Your task to perform on an android device: Clear all items from cart on ebay. Image 0: 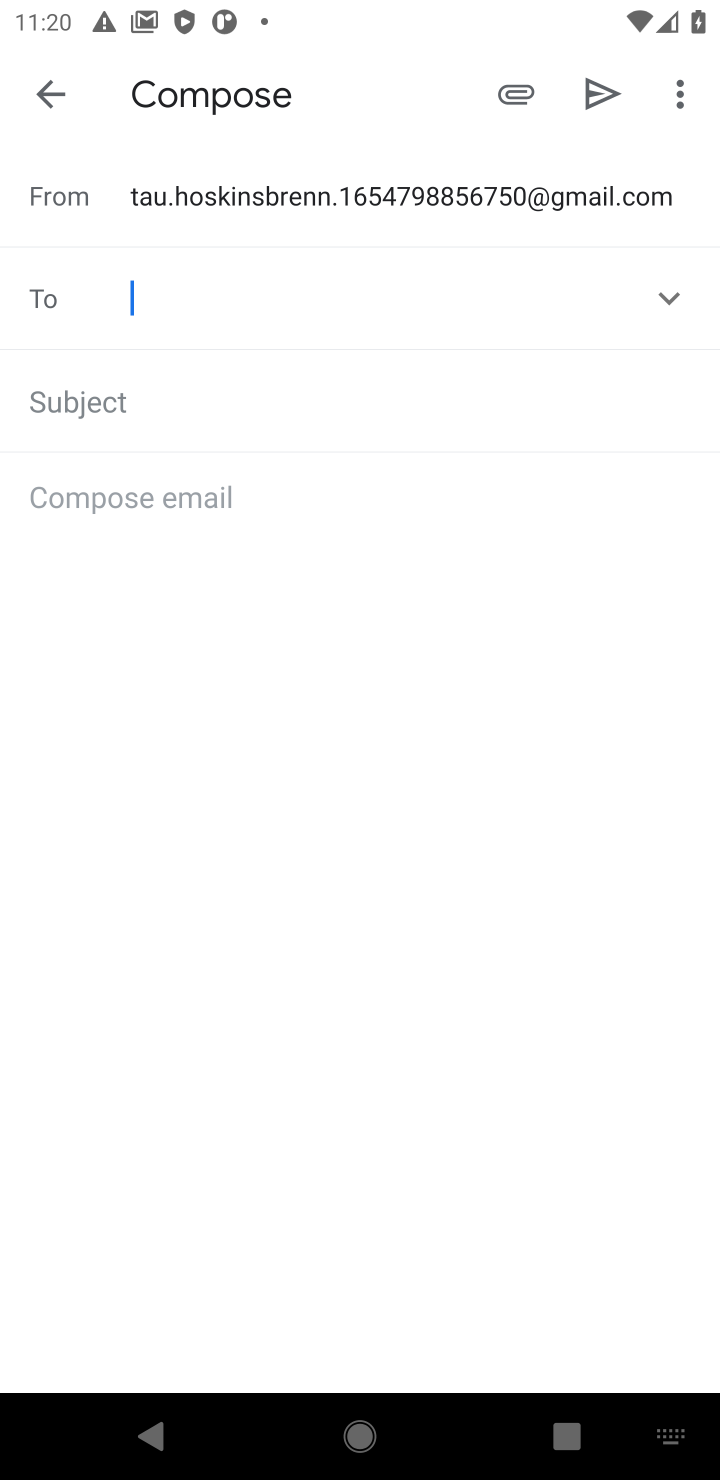
Step 0: press home button
Your task to perform on an android device: Clear all items from cart on ebay. Image 1: 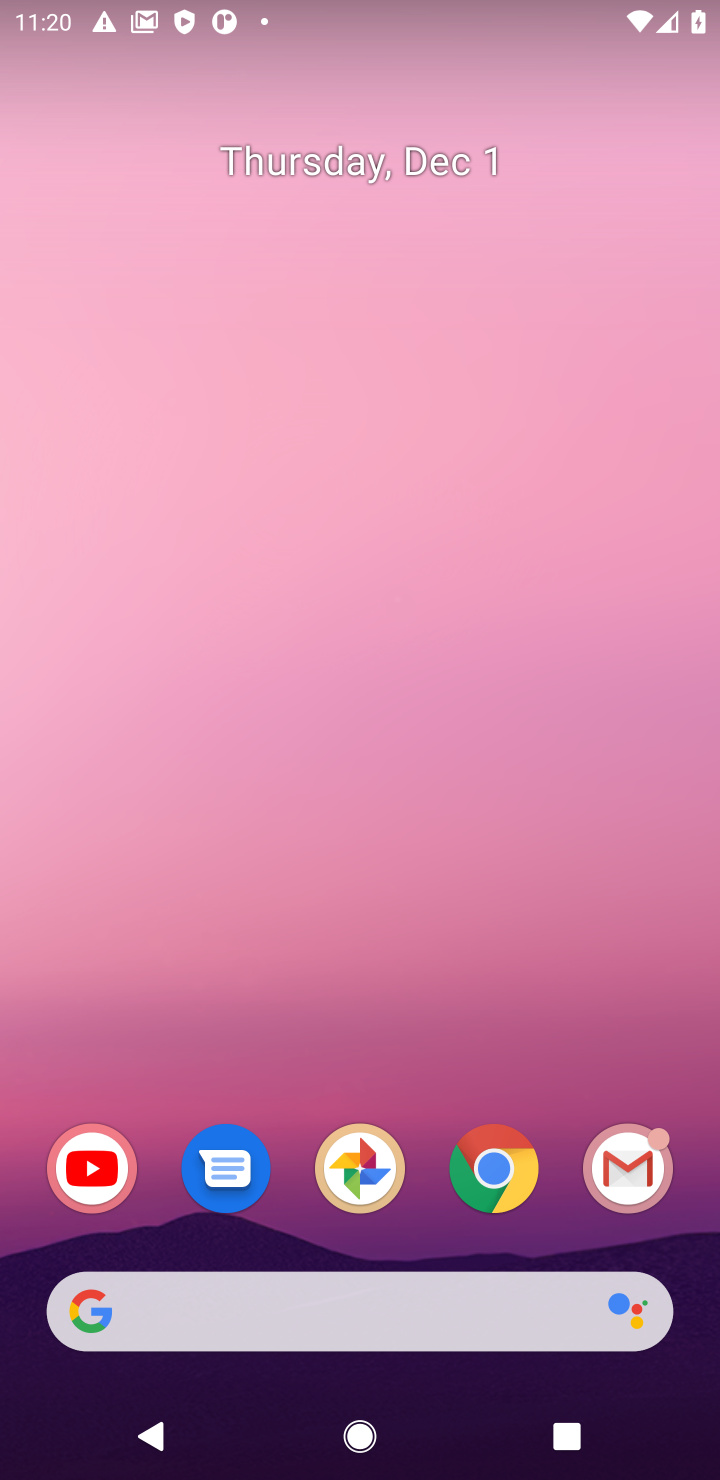
Step 1: click (497, 1177)
Your task to perform on an android device: Clear all items from cart on ebay. Image 2: 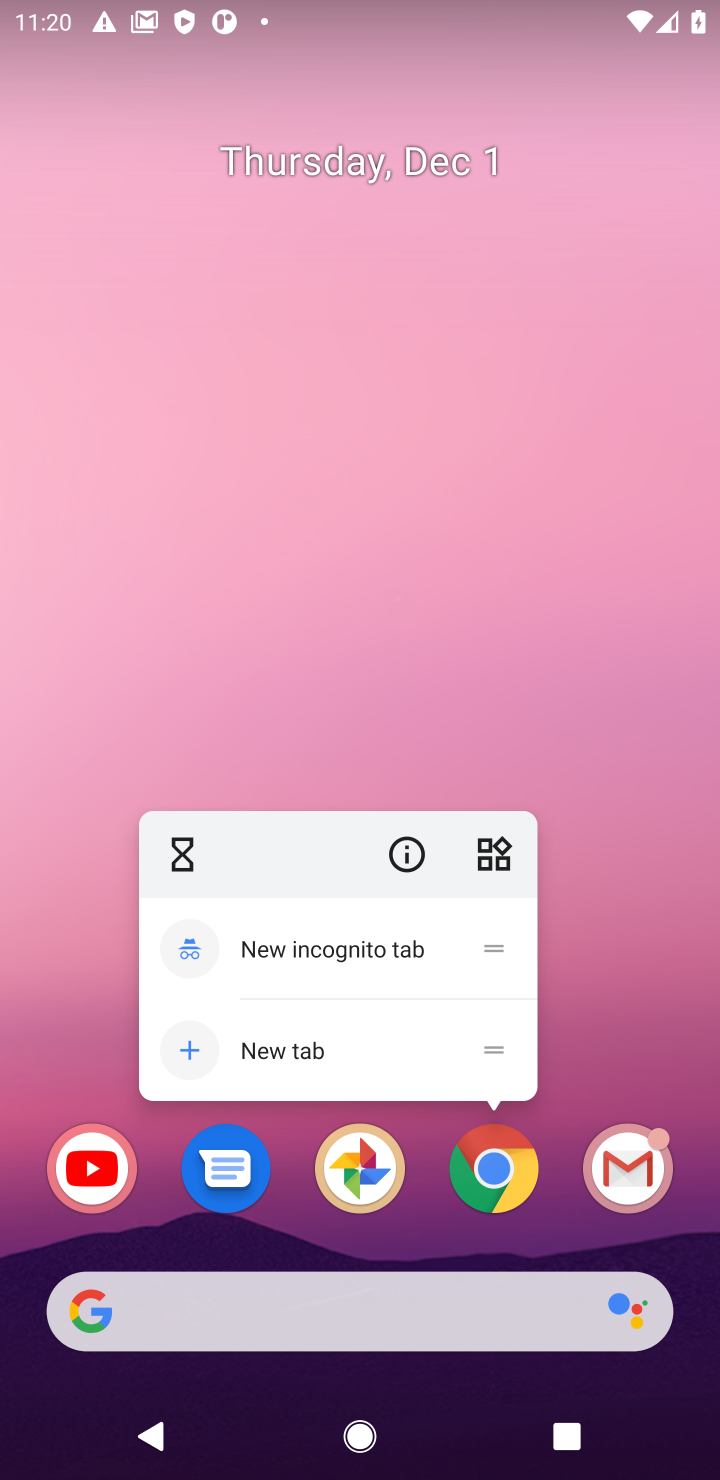
Step 2: click (497, 1177)
Your task to perform on an android device: Clear all items from cart on ebay. Image 3: 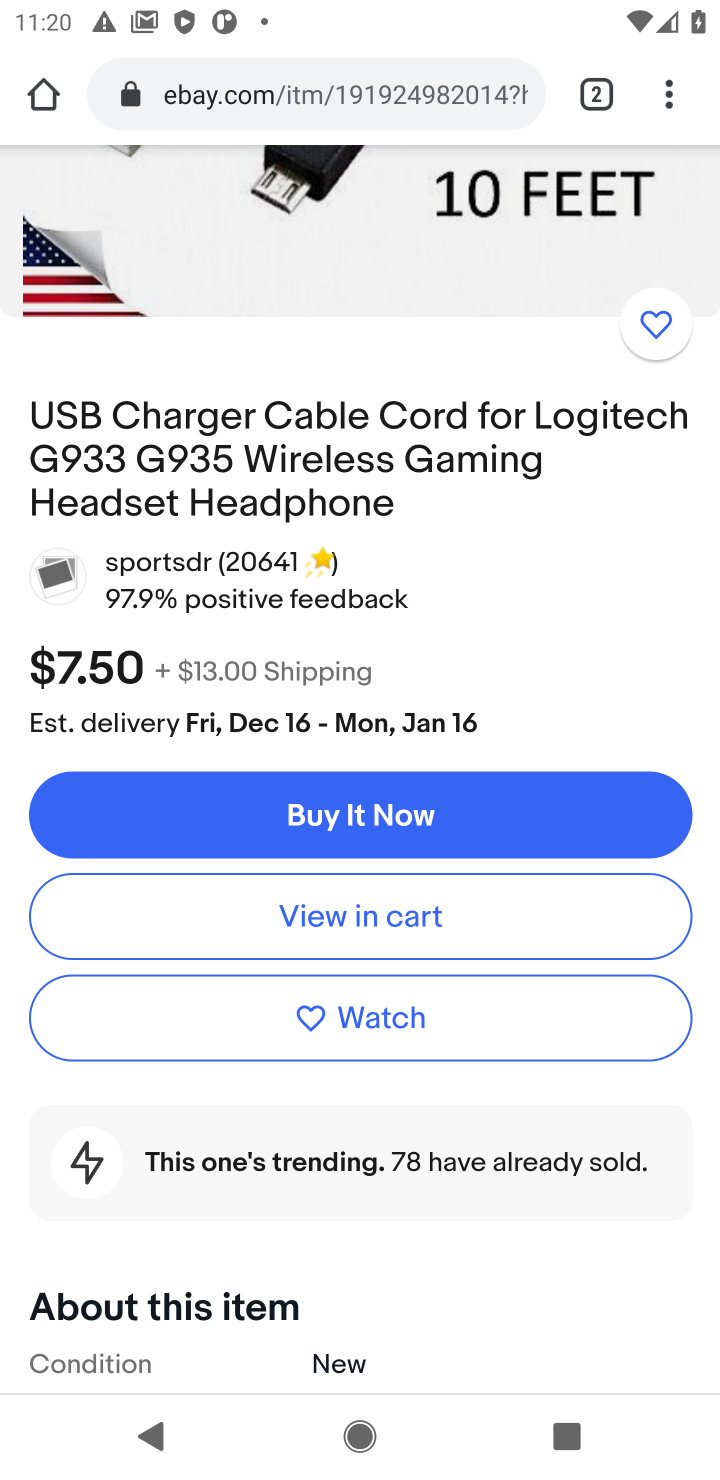
Step 3: drag from (500, 442) to (471, 1078)
Your task to perform on an android device: Clear all items from cart on ebay. Image 4: 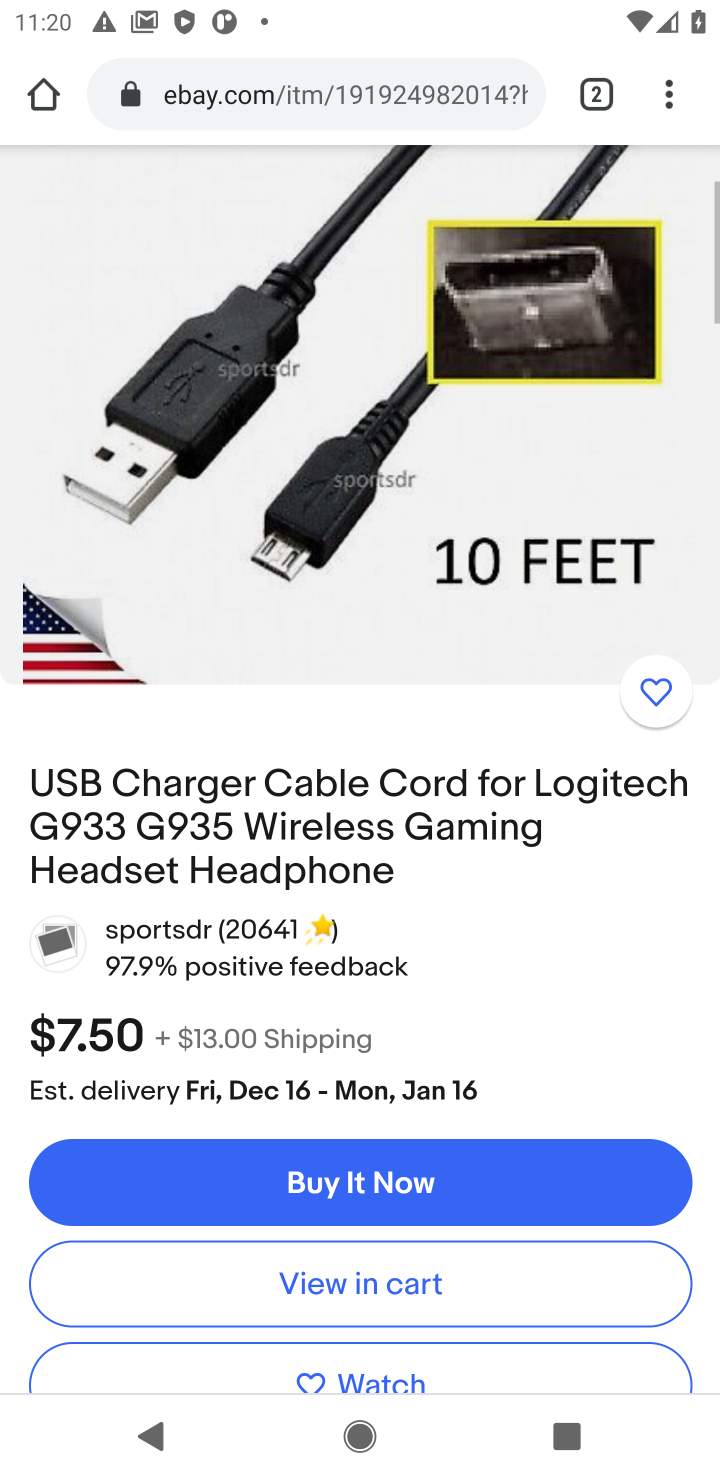
Step 4: drag from (460, 298) to (447, 885)
Your task to perform on an android device: Clear all items from cart on ebay. Image 5: 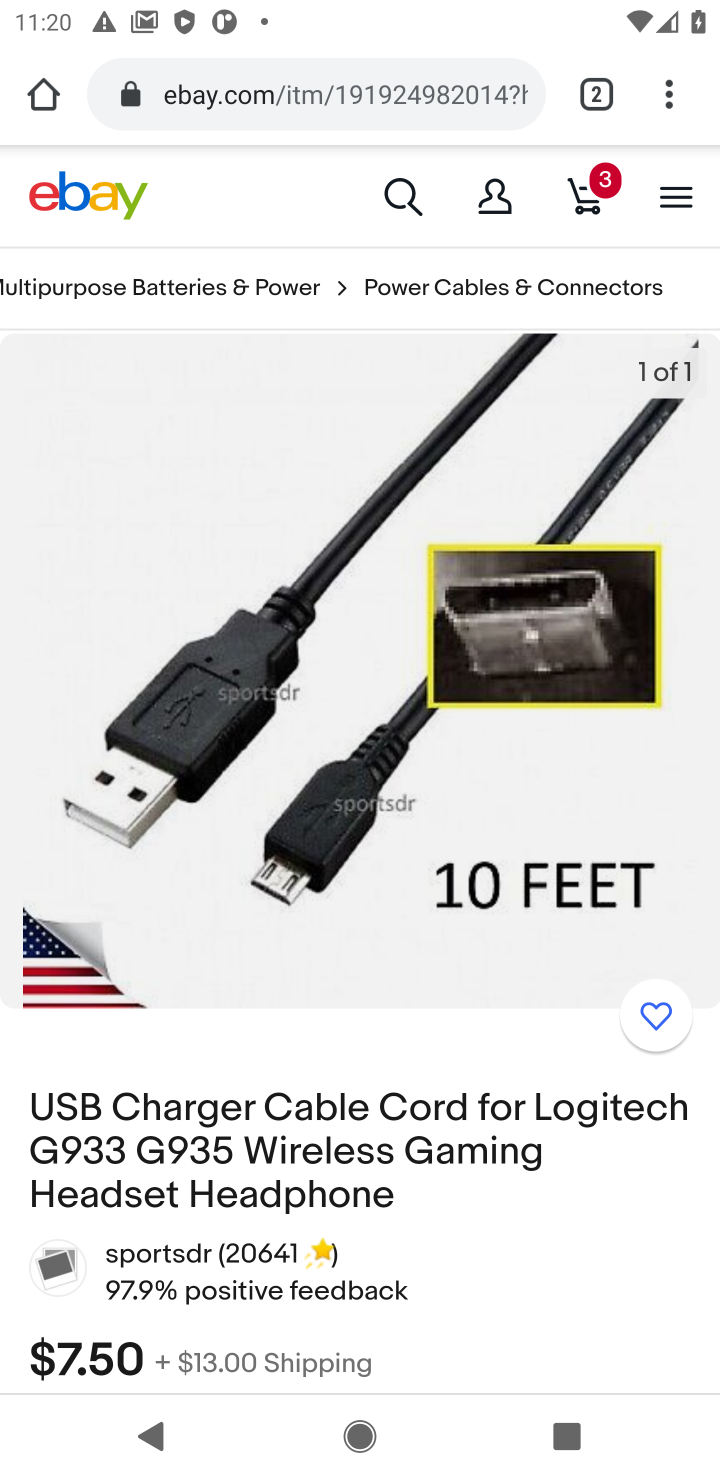
Step 5: click (583, 207)
Your task to perform on an android device: Clear all items from cart on ebay. Image 6: 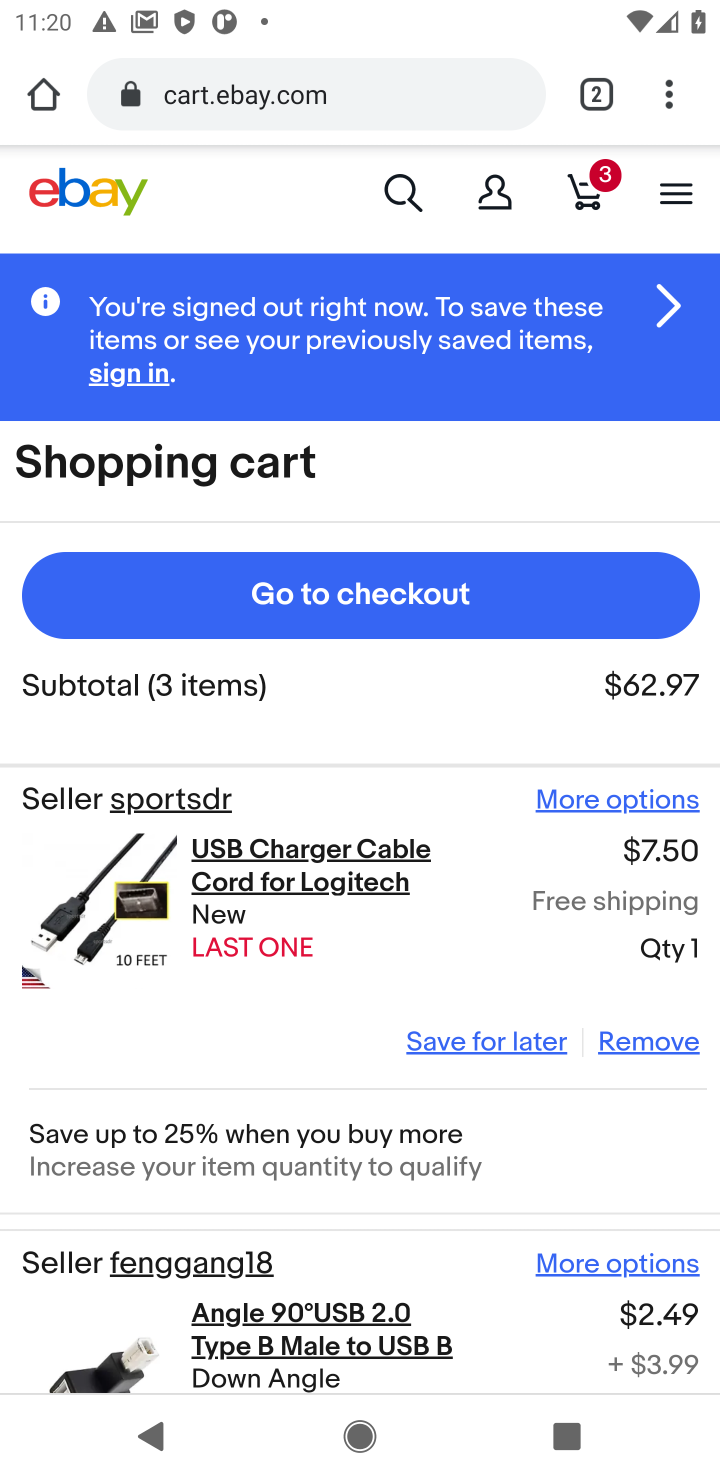
Step 6: click (631, 1044)
Your task to perform on an android device: Clear all items from cart on ebay. Image 7: 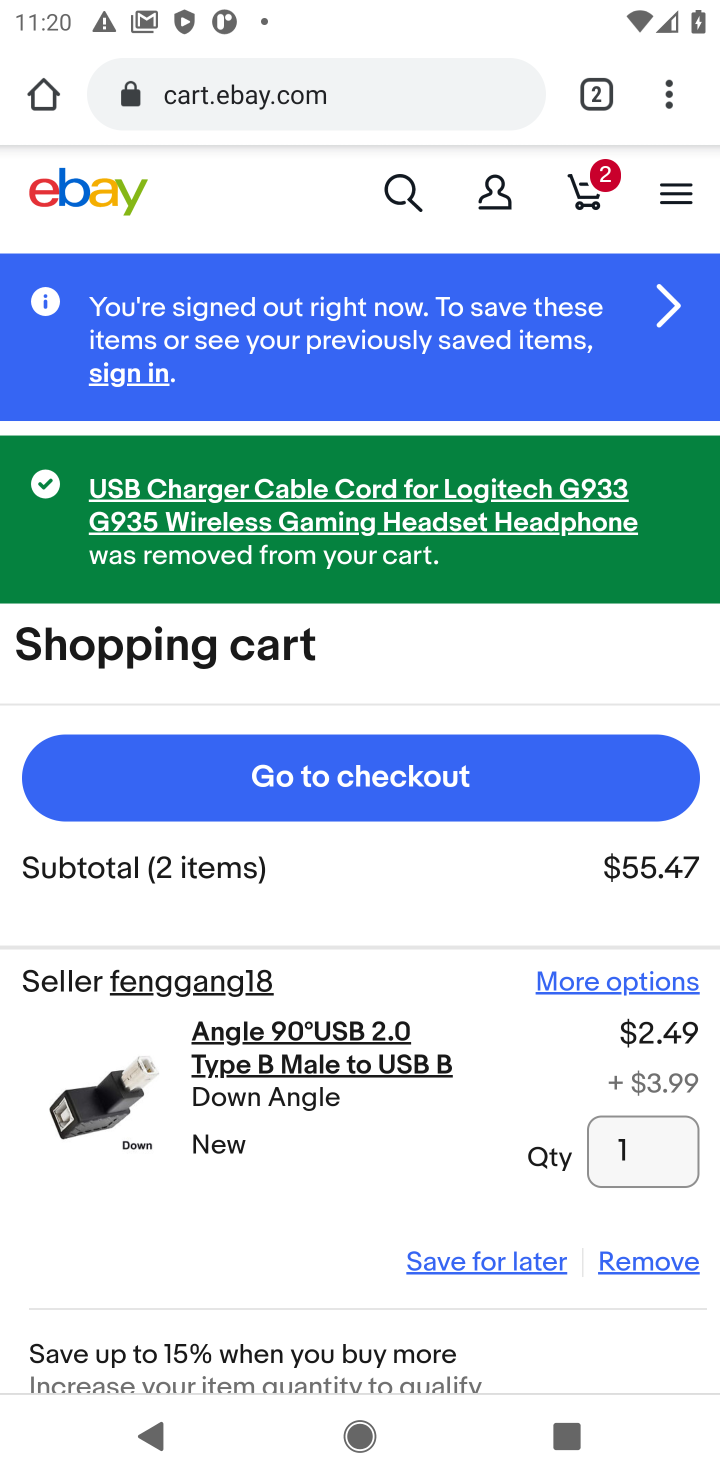
Step 7: click (632, 1258)
Your task to perform on an android device: Clear all items from cart on ebay. Image 8: 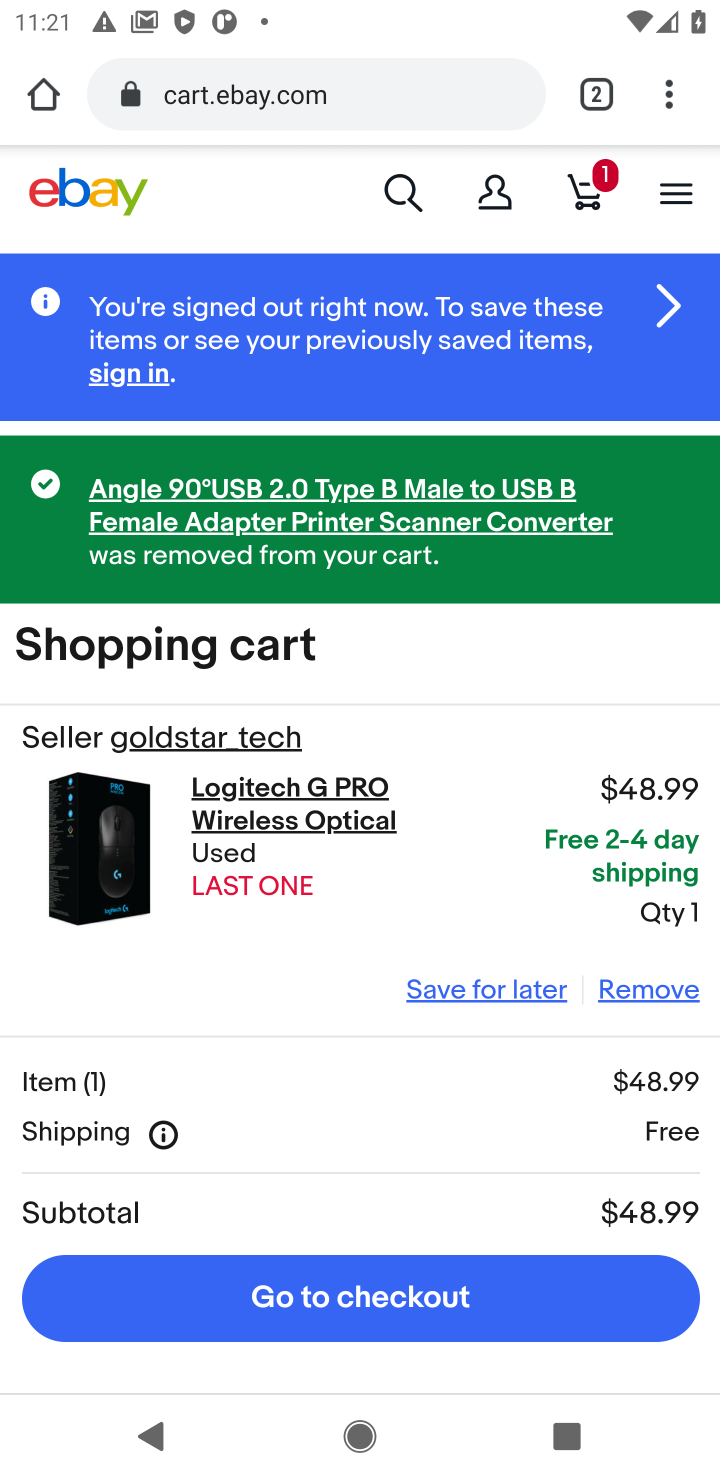
Step 8: click (642, 993)
Your task to perform on an android device: Clear all items from cart on ebay. Image 9: 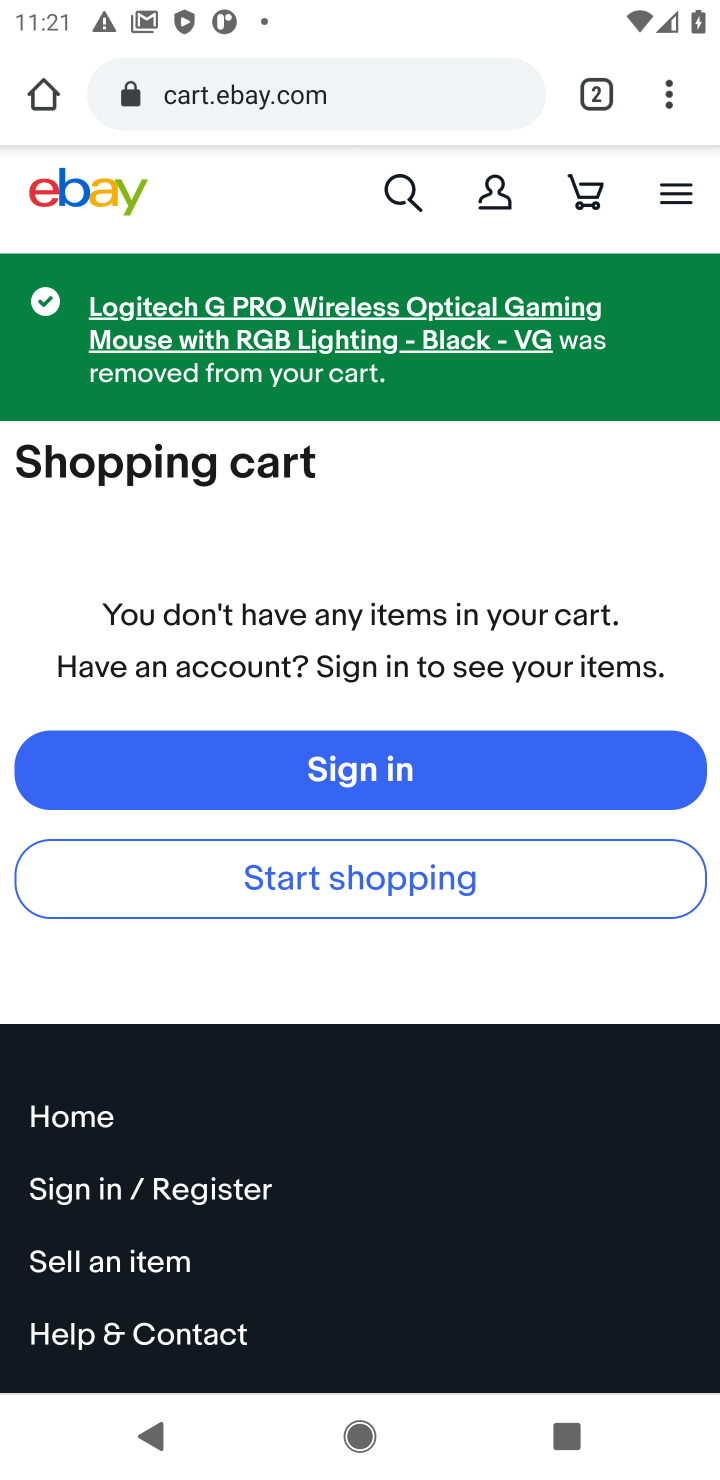
Step 9: task complete